Your task to perform on an android device: Go to location settings Image 0: 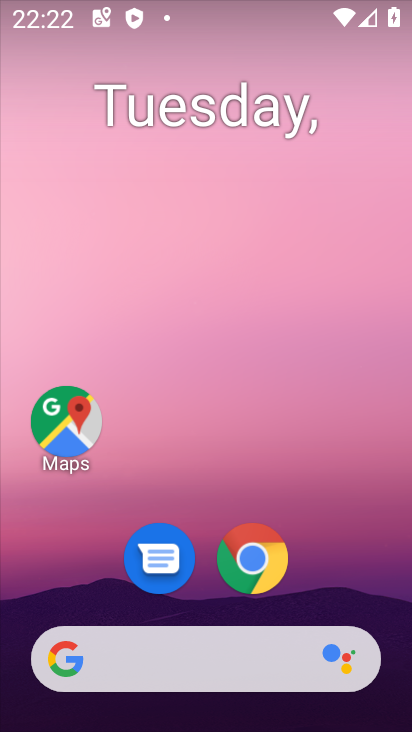
Step 0: drag from (214, 597) to (218, 69)
Your task to perform on an android device: Go to location settings Image 1: 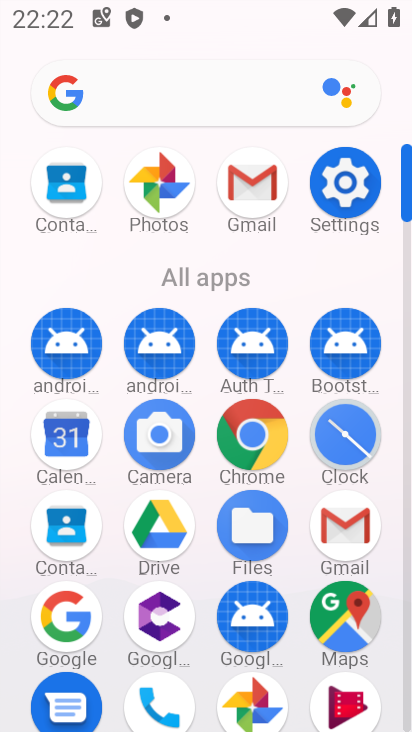
Step 1: click (343, 179)
Your task to perform on an android device: Go to location settings Image 2: 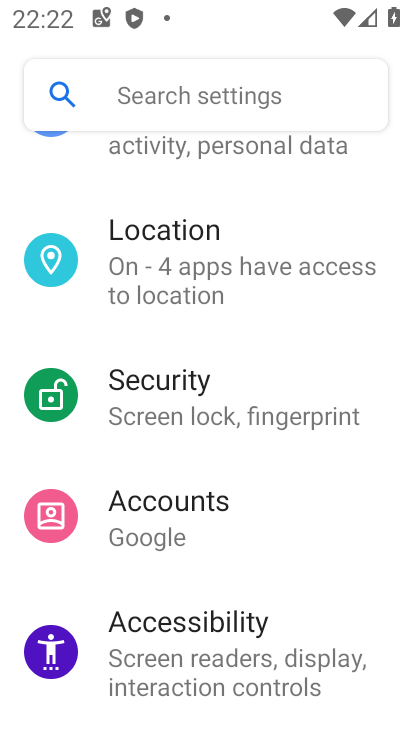
Step 2: click (201, 288)
Your task to perform on an android device: Go to location settings Image 3: 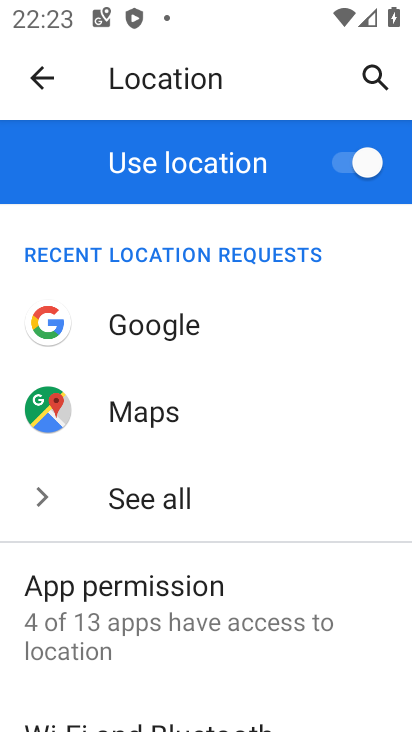
Step 3: task complete